Your task to perform on an android device: Open the calendar app, open the side menu, and click the "Day" option Image 0: 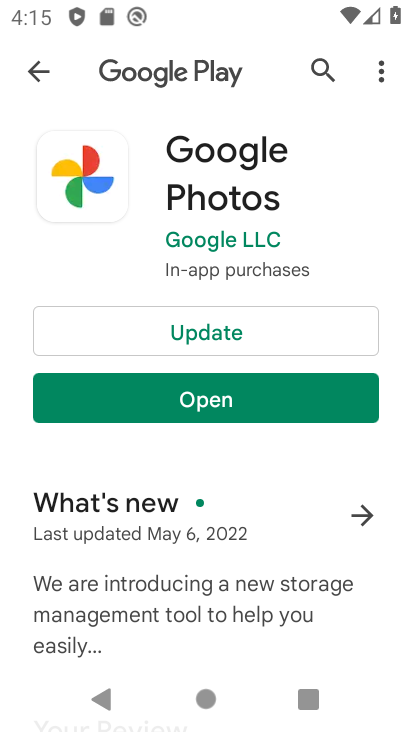
Step 0: press back button
Your task to perform on an android device: Open the calendar app, open the side menu, and click the "Day" option Image 1: 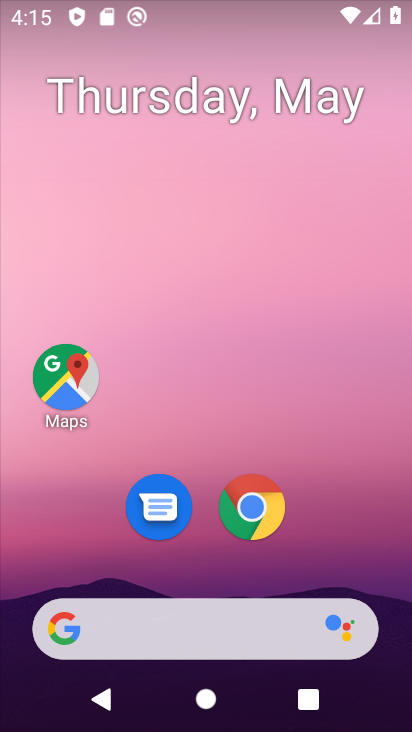
Step 1: drag from (378, 558) to (92, 44)
Your task to perform on an android device: Open the calendar app, open the side menu, and click the "Day" option Image 2: 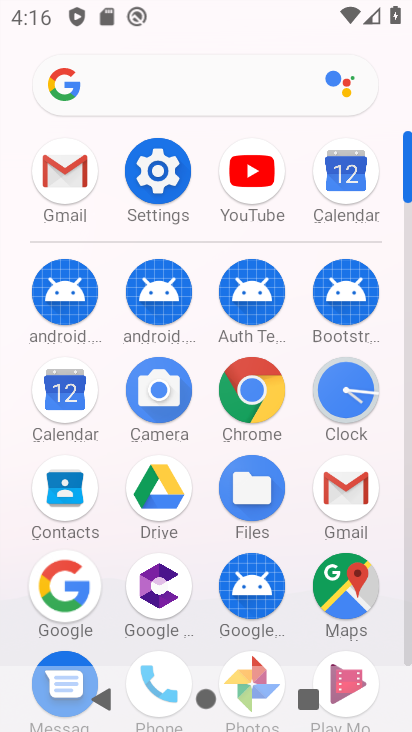
Step 2: click (70, 396)
Your task to perform on an android device: Open the calendar app, open the side menu, and click the "Day" option Image 3: 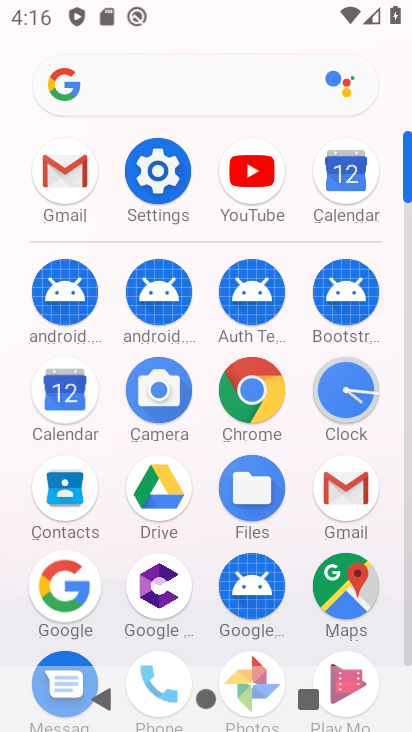
Step 3: click (70, 397)
Your task to perform on an android device: Open the calendar app, open the side menu, and click the "Day" option Image 4: 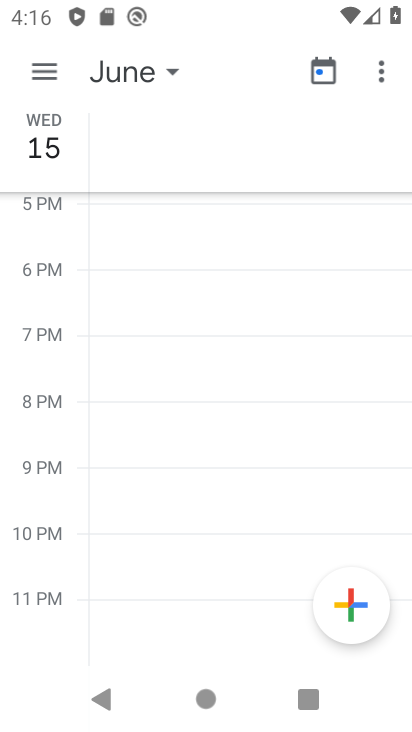
Step 4: click (41, 69)
Your task to perform on an android device: Open the calendar app, open the side menu, and click the "Day" option Image 5: 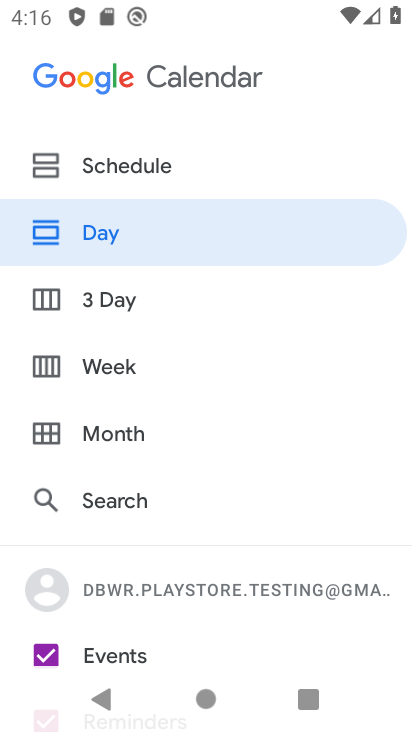
Step 5: click (107, 235)
Your task to perform on an android device: Open the calendar app, open the side menu, and click the "Day" option Image 6: 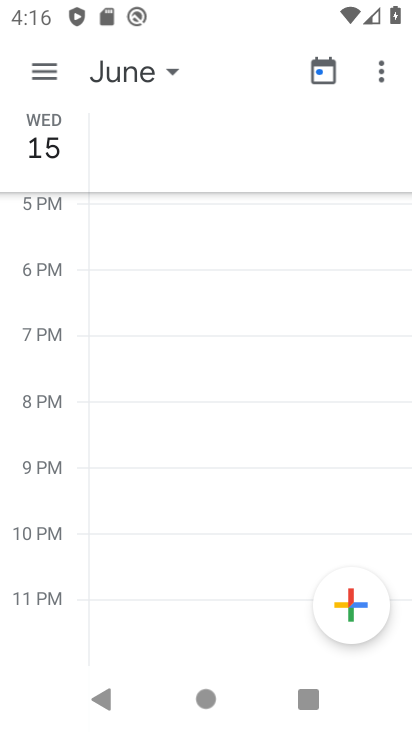
Step 6: task complete